Your task to perform on an android device: Clear the shopping cart on costco. Image 0: 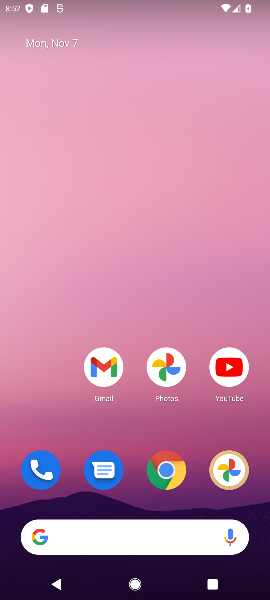
Step 0: click (161, 468)
Your task to perform on an android device: Clear the shopping cart on costco. Image 1: 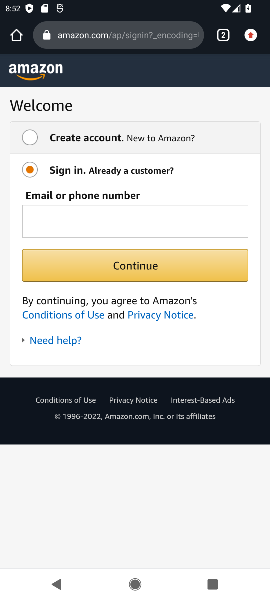
Step 1: click (111, 32)
Your task to perform on an android device: Clear the shopping cart on costco. Image 2: 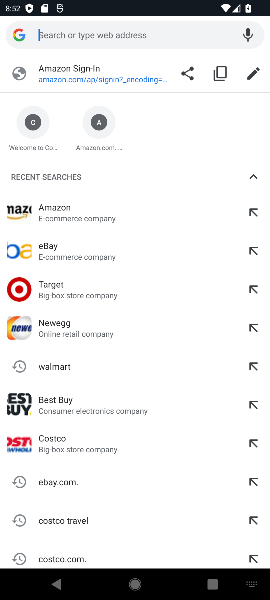
Step 2: type "costco"
Your task to perform on an android device: Clear the shopping cart on costco. Image 3: 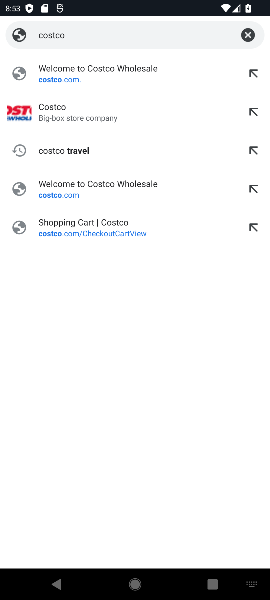
Step 3: click (131, 118)
Your task to perform on an android device: Clear the shopping cart on costco. Image 4: 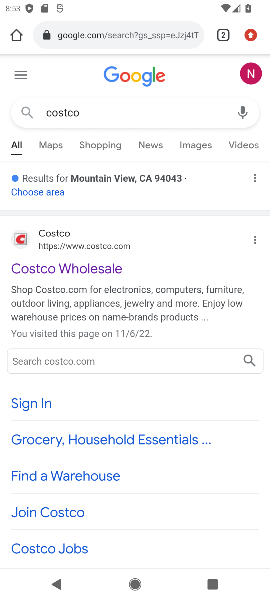
Step 4: click (100, 268)
Your task to perform on an android device: Clear the shopping cart on costco. Image 5: 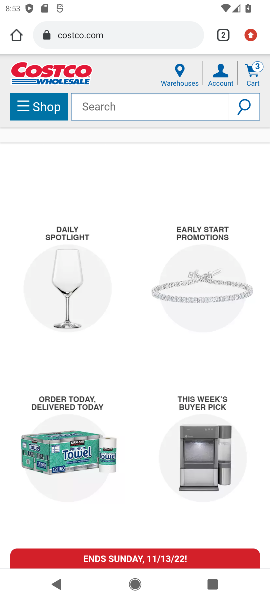
Step 5: click (248, 70)
Your task to perform on an android device: Clear the shopping cart on costco. Image 6: 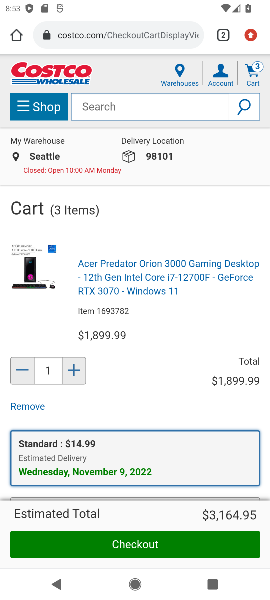
Step 6: click (35, 408)
Your task to perform on an android device: Clear the shopping cart on costco. Image 7: 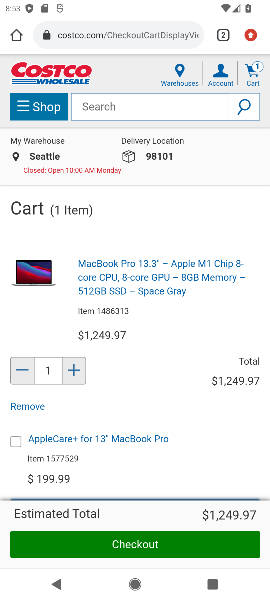
Step 7: click (35, 408)
Your task to perform on an android device: Clear the shopping cart on costco. Image 8: 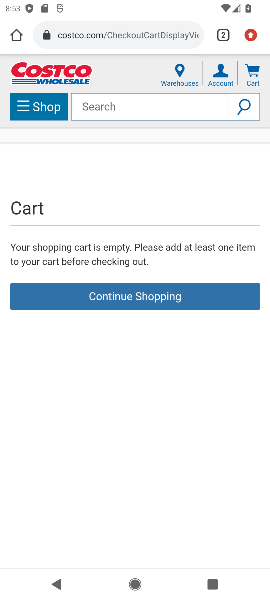
Step 8: click (35, 408)
Your task to perform on an android device: Clear the shopping cart on costco. Image 9: 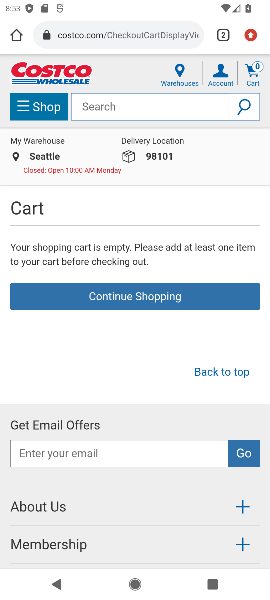
Step 9: task complete